Your task to perform on an android device: Add usb-b to the cart on costco.com, then select checkout. Image 0: 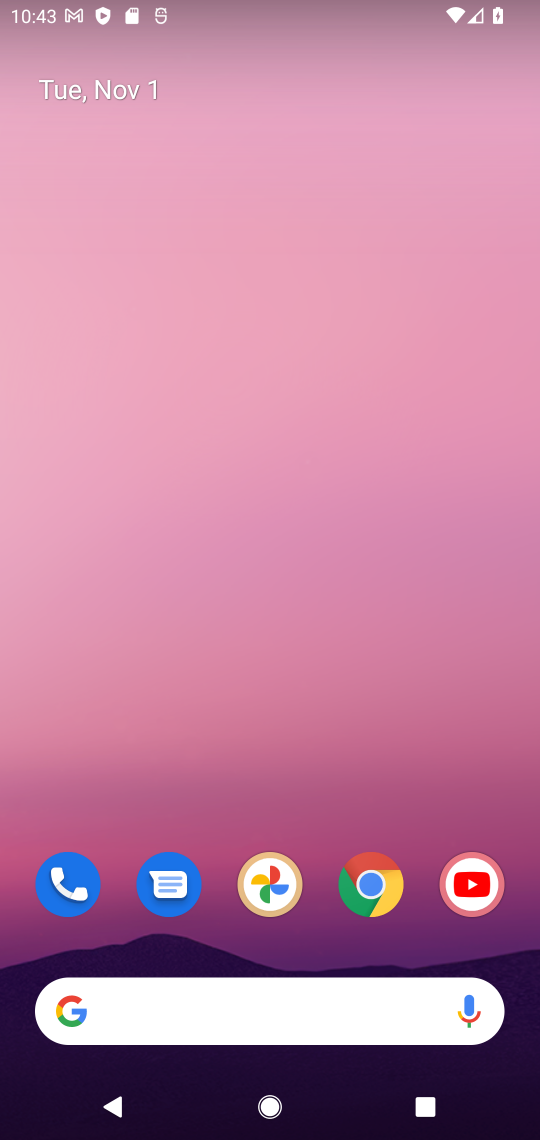
Step 0: click (338, 916)
Your task to perform on an android device: Add usb-b to the cart on costco.com, then select checkout. Image 1: 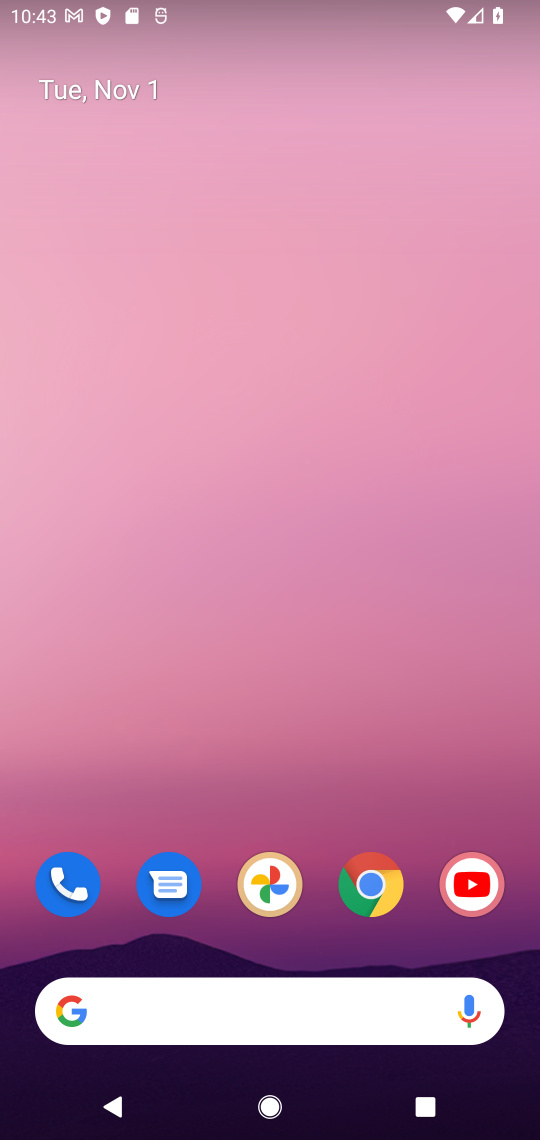
Step 1: click (387, 883)
Your task to perform on an android device: Add usb-b to the cart on costco.com, then select checkout. Image 2: 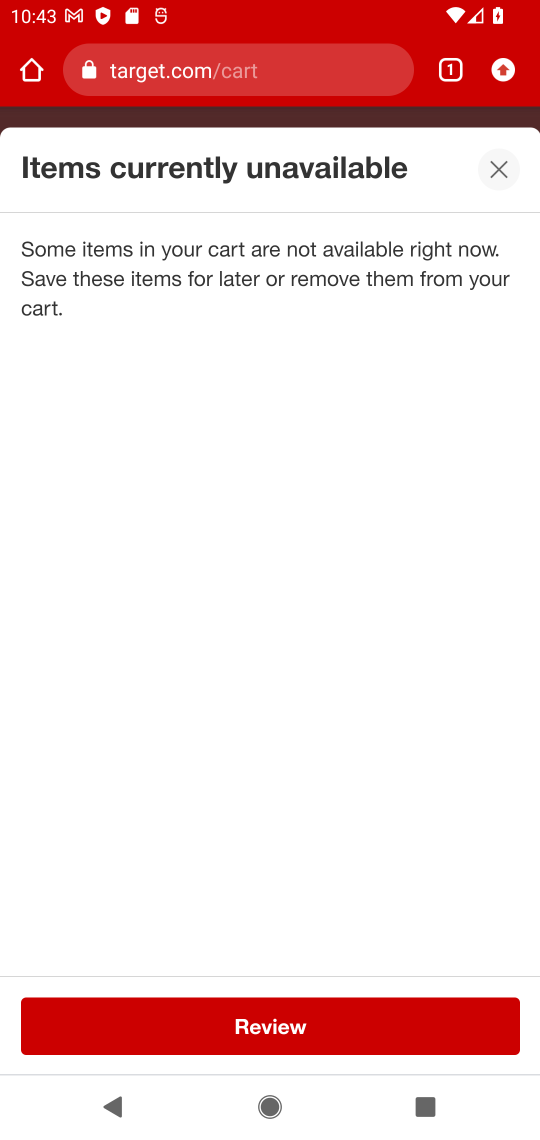
Step 2: click (287, 65)
Your task to perform on an android device: Add usb-b to the cart on costco.com, then select checkout. Image 3: 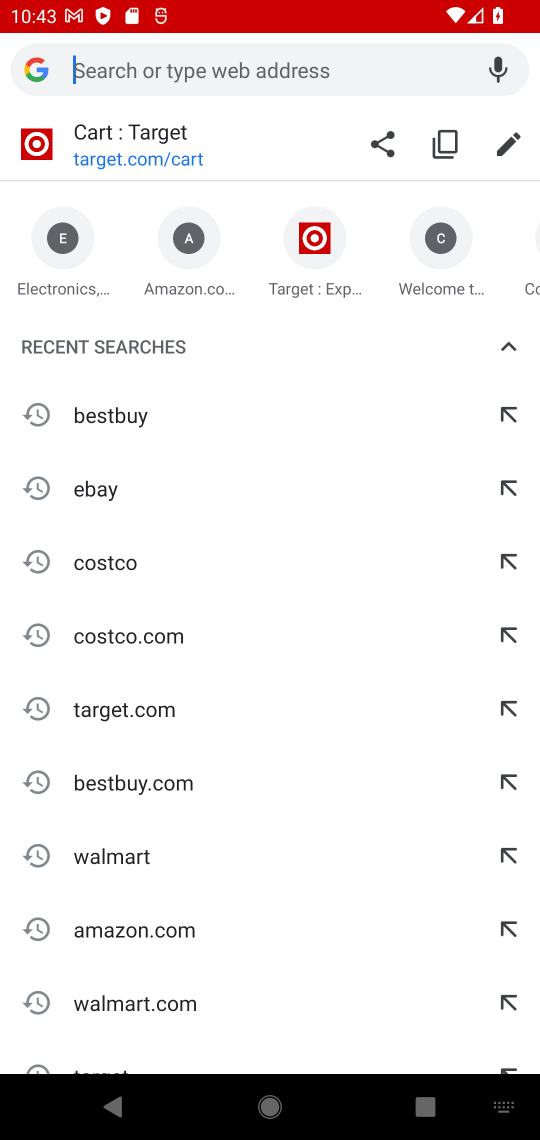
Step 3: type "costco.com"
Your task to perform on an android device: Add usb-b to the cart on costco.com, then select checkout. Image 4: 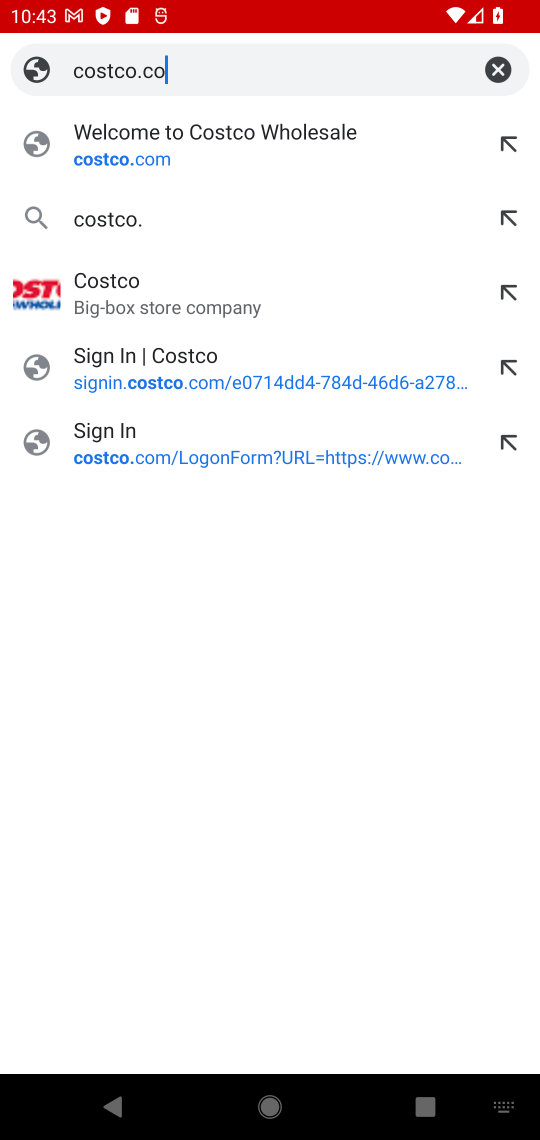
Step 4: type ""
Your task to perform on an android device: Add usb-b to the cart on costco.com, then select checkout. Image 5: 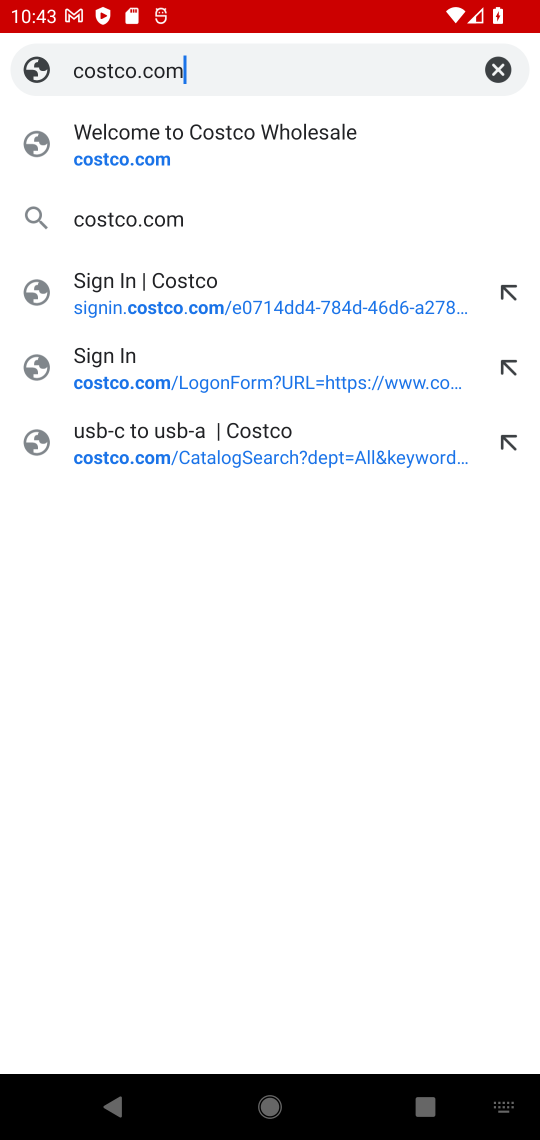
Step 5: press enter
Your task to perform on an android device: Add usb-b to the cart on costco.com, then select checkout. Image 6: 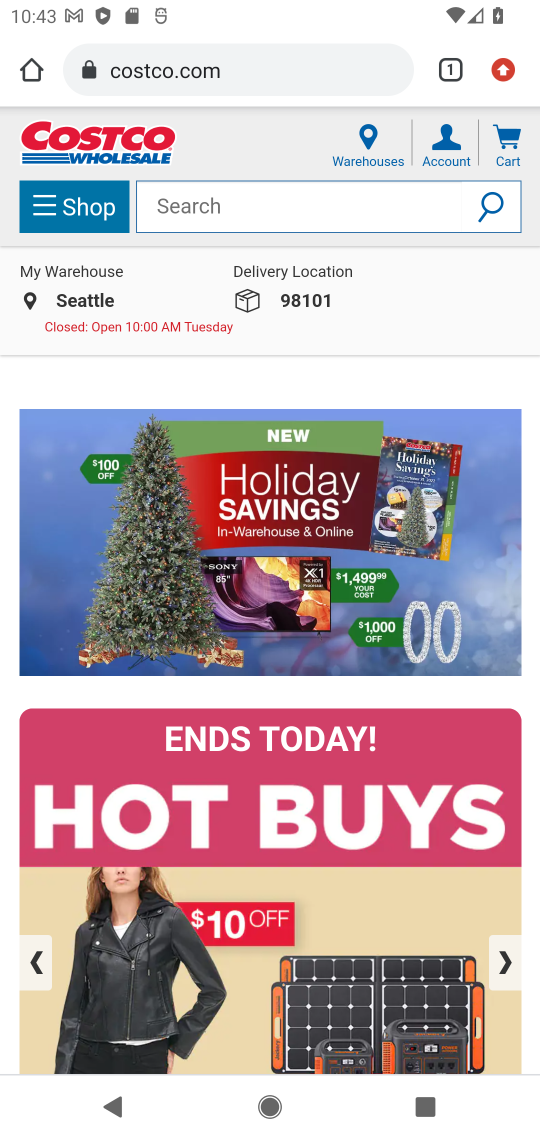
Step 6: click (286, 210)
Your task to perform on an android device: Add usb-b to the cart on costco.com, then select checkout. Image 7: 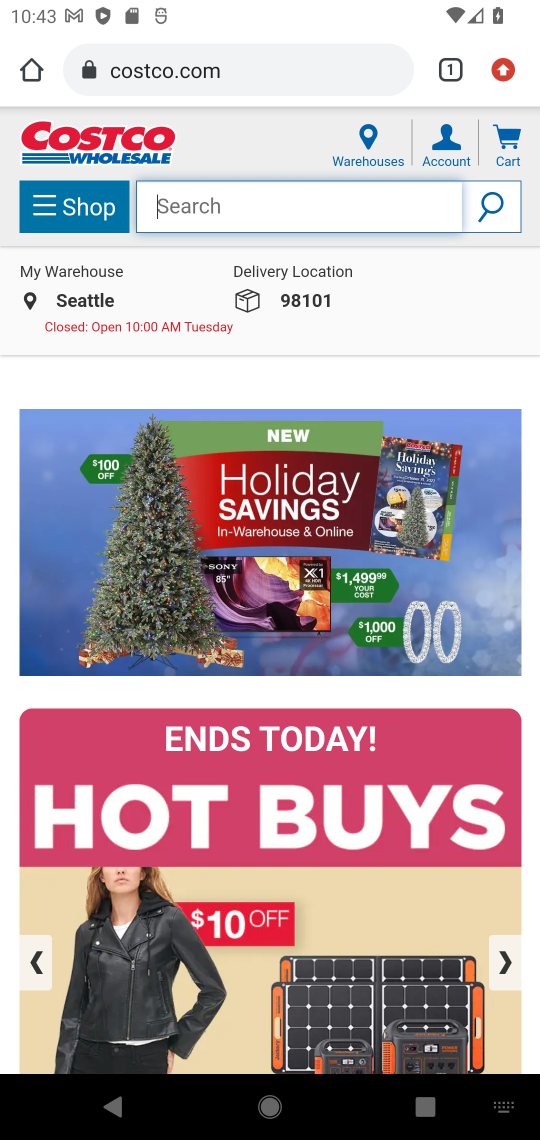
Step 7: type "usb-b"
Your task to perform on an android device: Add usb-b to the cart on costco.com, then select checkout. Image 8: 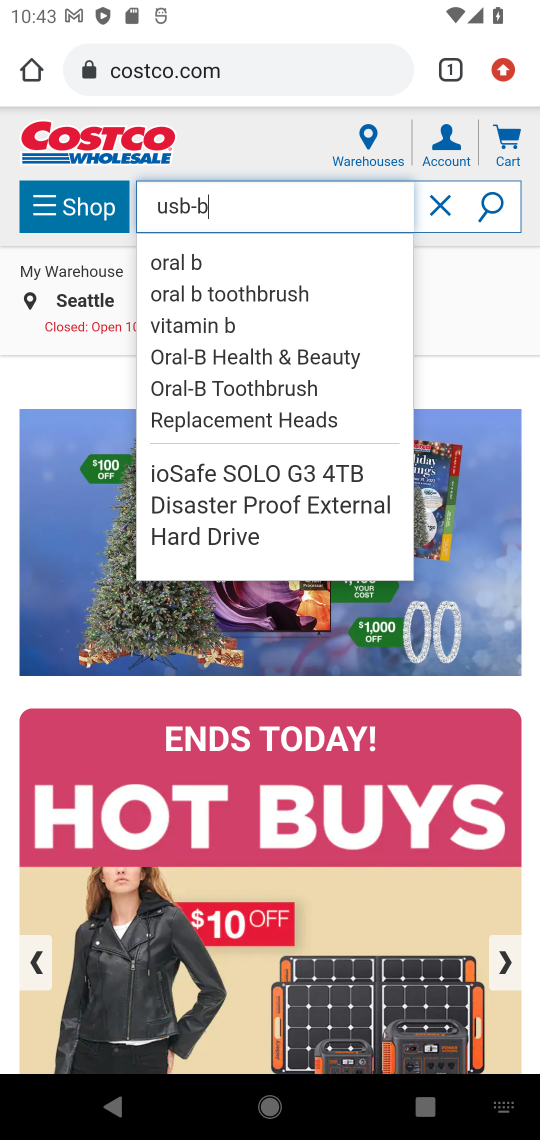
Step 8: press enter
Your task to perform on an android device: Add usb-b to the cart on costco.com, then select checkout. Image 9: 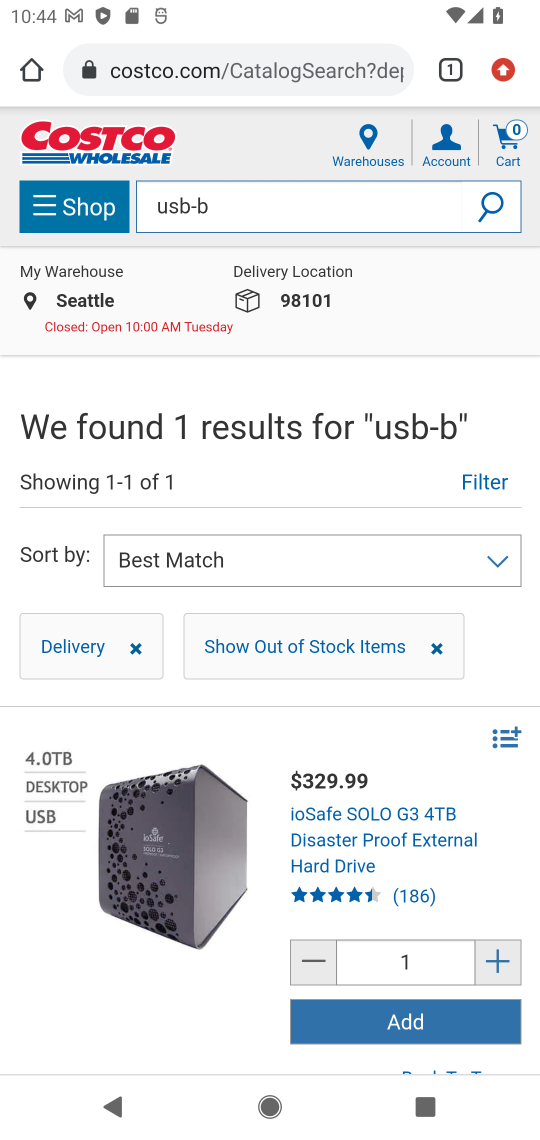
Step 9: task complete